Your task to perform on an android device: Search for the best gaming mouses on Amazon. Image 0: 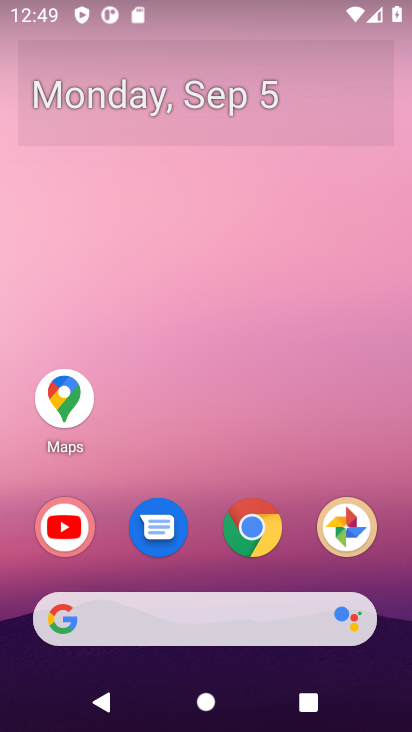
Step 0: click (261, 527)
Your task to perform on an android device: Search for the best gaming mouses on Amazon. Image 1: 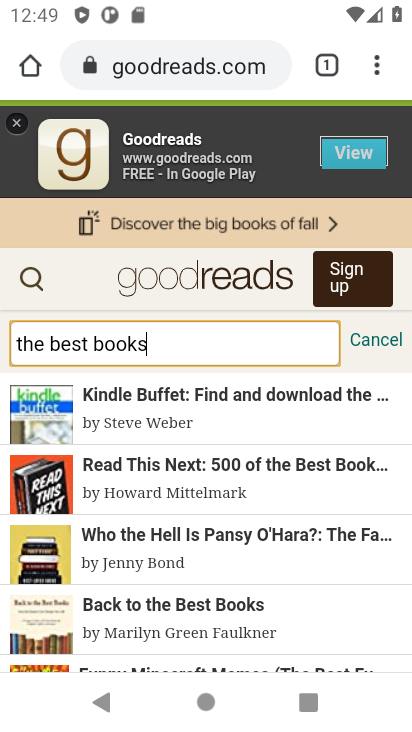
Step 1: click (188, 76)
Your task to perform on an android device: Search for the best gaming mouses on Amazon. Image 2: 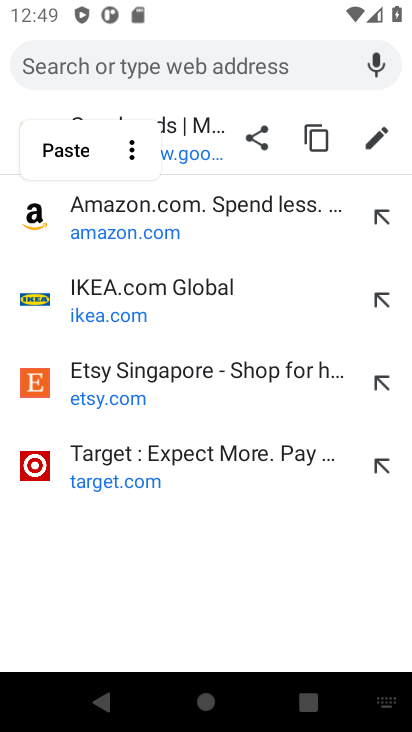
Step 2: type "Amazon"
Your task to perform on an android device: Search for the best gaming mouses on Amazon. Image 3: 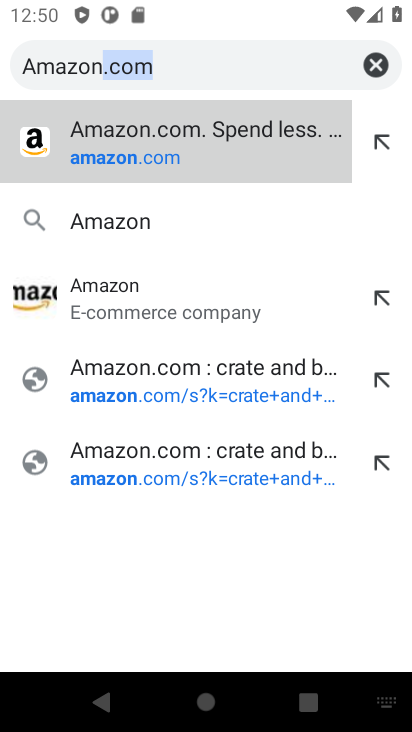
Step 3: click (130, 137)
Your task to perform on an android device: Search for the best gaming mouses on Amazon. Image 4: 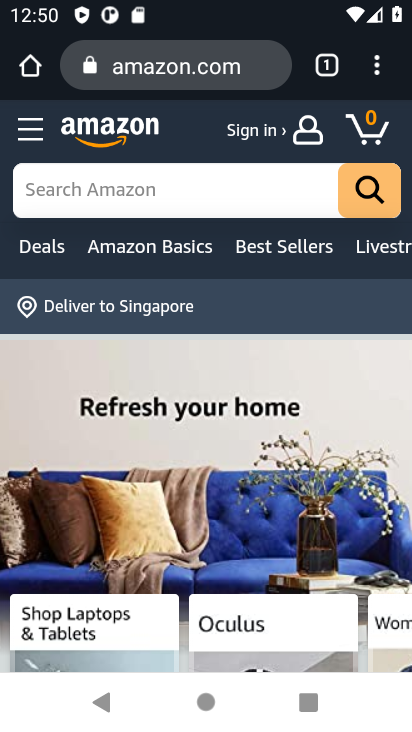
Step 4: click (212, 194)
Your task to perform on an android device: Search for the best gaming mouses on Amazon. Image 5: 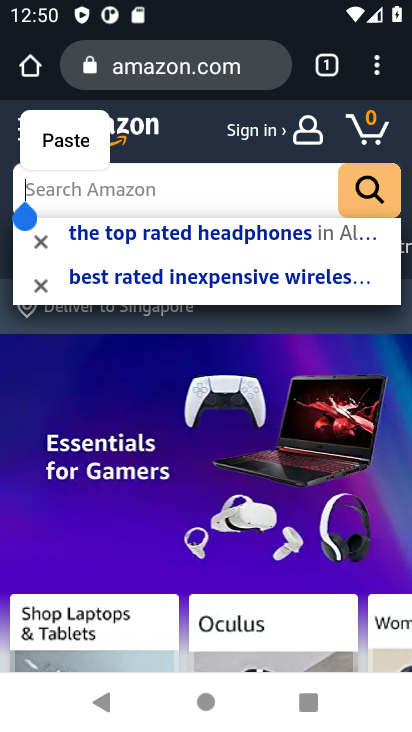
Step 5: type "the best gaming mouses"
Your task to perform on an android device: Search for the best gaming mouses on Amazon. Image 6: 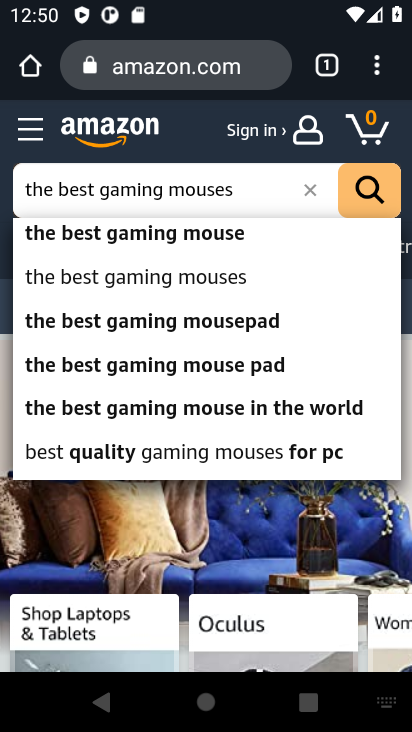
Step 6: click (134, 240)
Your task to perform on an android device: Search for the best gaming mouses on Amazon. Image 7: 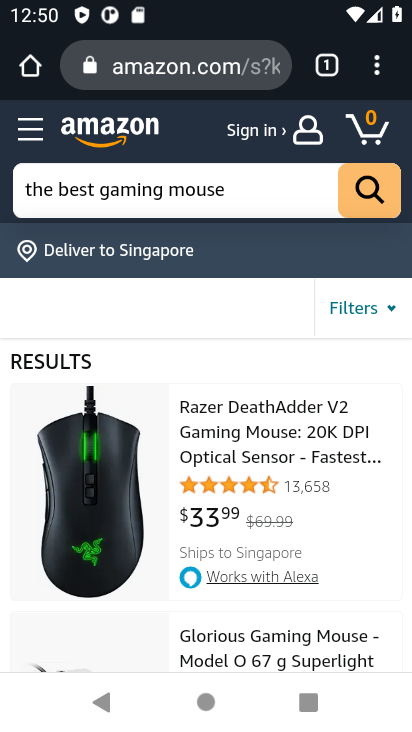
Step 7: task complete